Your task to perform on an android device: Go to battery settings Image 0: 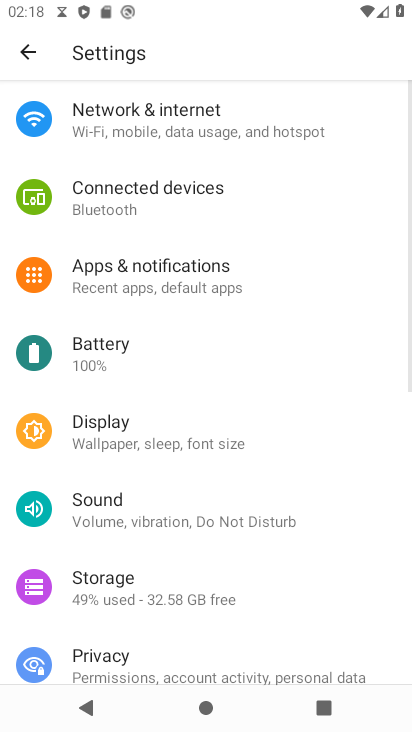
Step 0: press home button
Your task to perform on an android device: Go to battery settings Image 1: 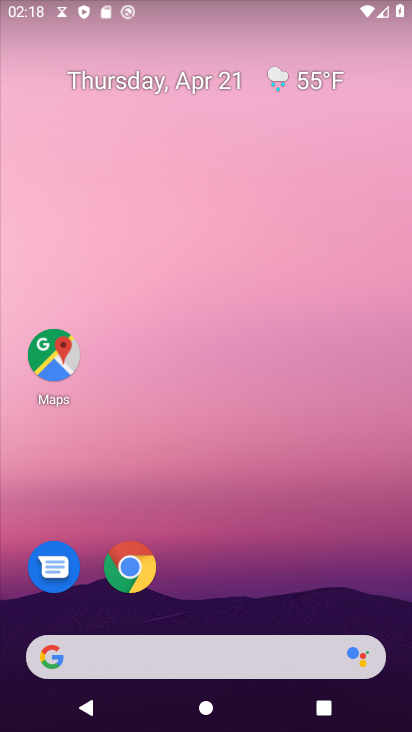
Step 1: drag from (180, 586) to (301, 130)
Your task to perform on an android device: Go to battery settings Image 2: 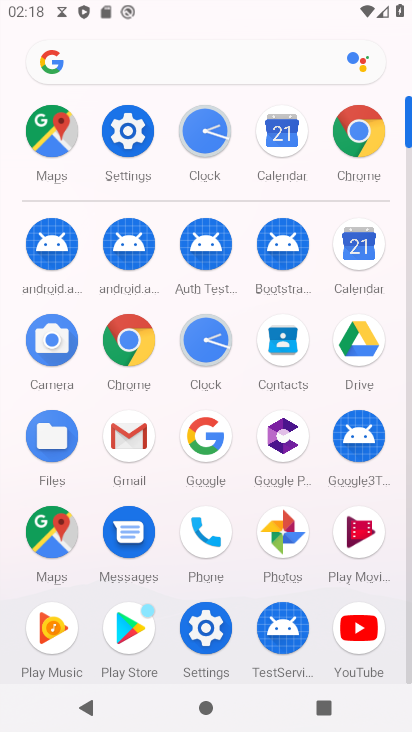
Step 2: click (121, 135)
Your task to perform on an android device: Go to battery settings Image 3: 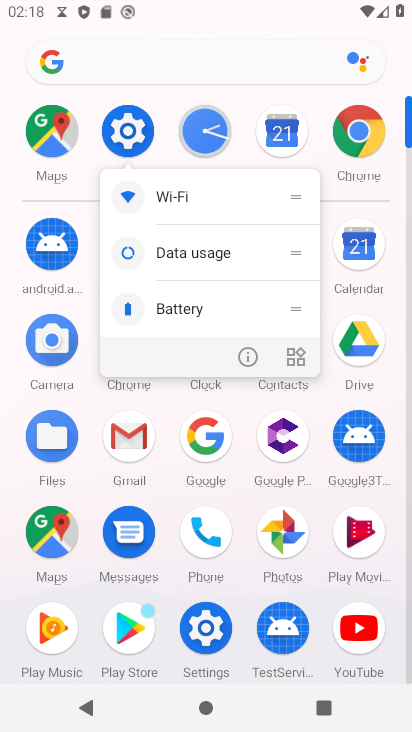
Step 3: click (135, 136)
Your task to perform on an android device: Go to battery settings Image 4: 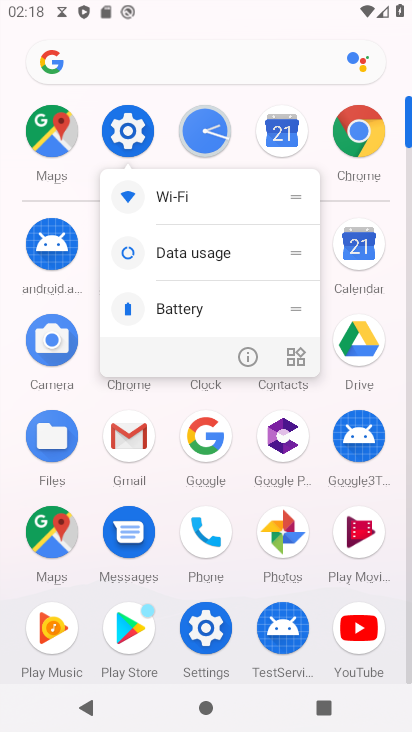
Step 4: click (126, 134)
Your task to perform on an android device: Go to battery settings Image 5: 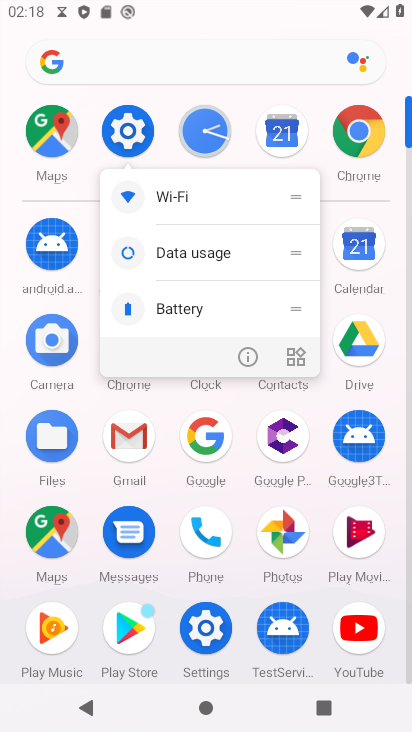
Step 5: click (126, 134)
Your task to perform on an android device: Go to battery settings Image 6: 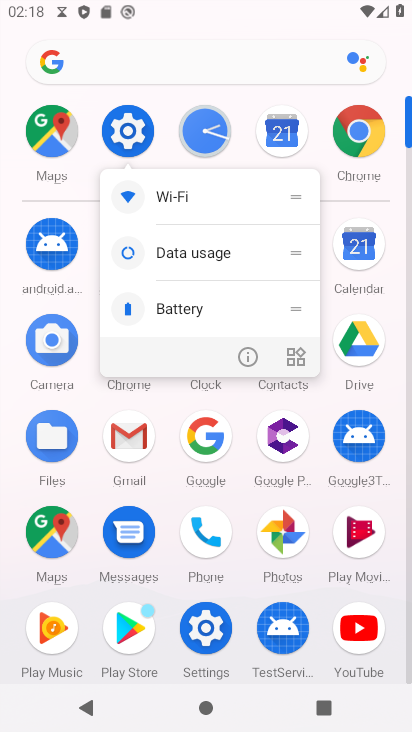
Step 6: click (131, 134)
Your task to perform on an android device: Go to battery settings Image 7: 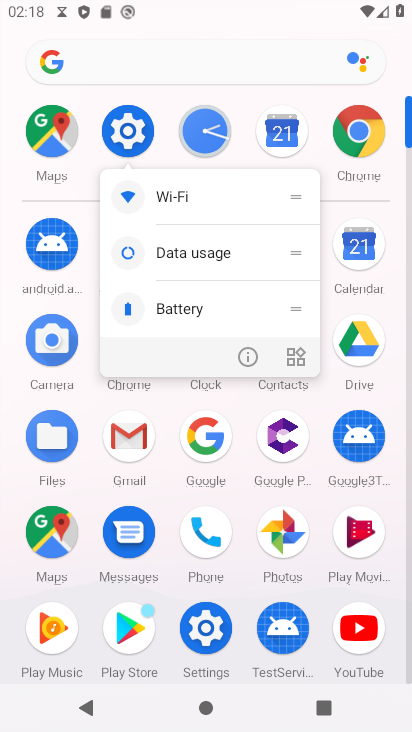
Step 7: click (129, 135)
Your task to perform on an android device: Go to battery settings Image 8: 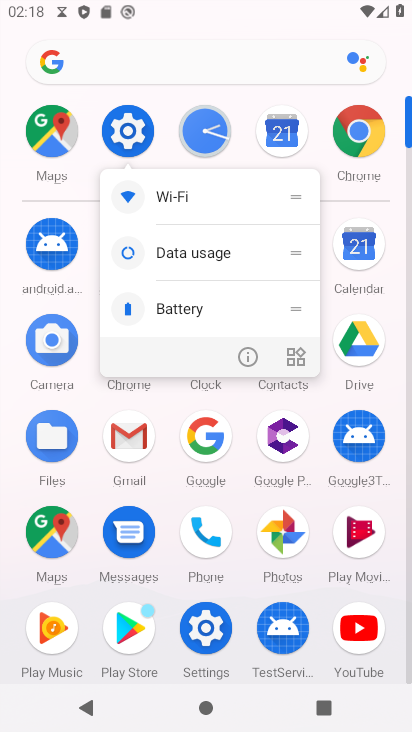
Step 8: click (123, 136)
Your task to perform on an android device: Go to battery settings Image 9: 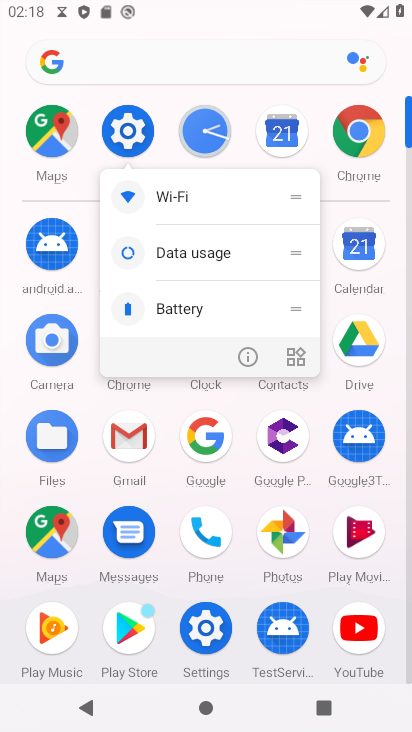
Step 9: click (132, 137)
Your task to perform on an android device: Go to battery settings Image 10: 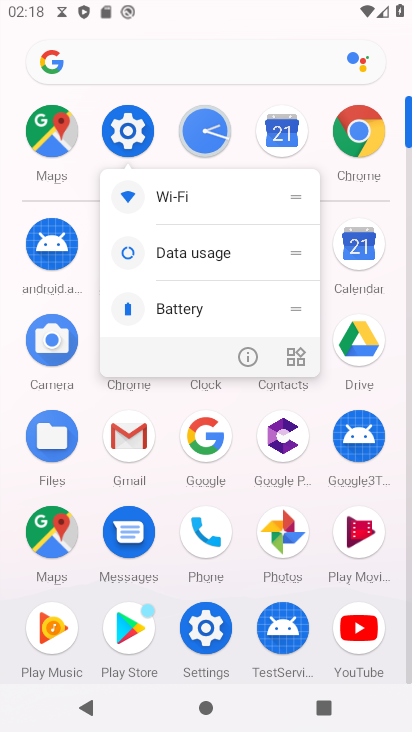
Step 10: click (130, 127)
Your task to perform on an android device: Go to battery settings Image 11: 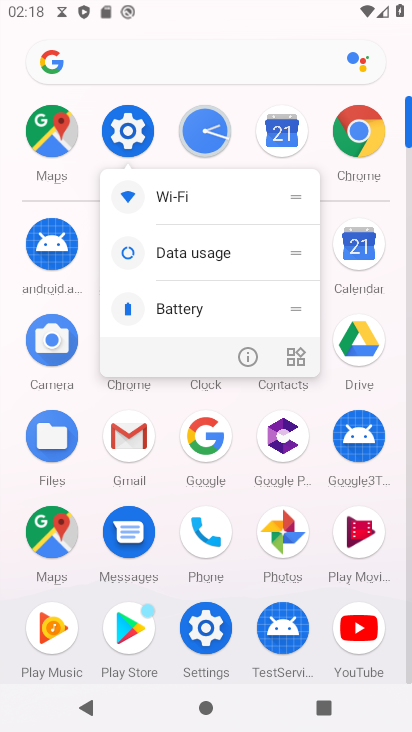
Step 11: click (125, 133)
Your task to perform on an android device: Go to battery settings Image 12: 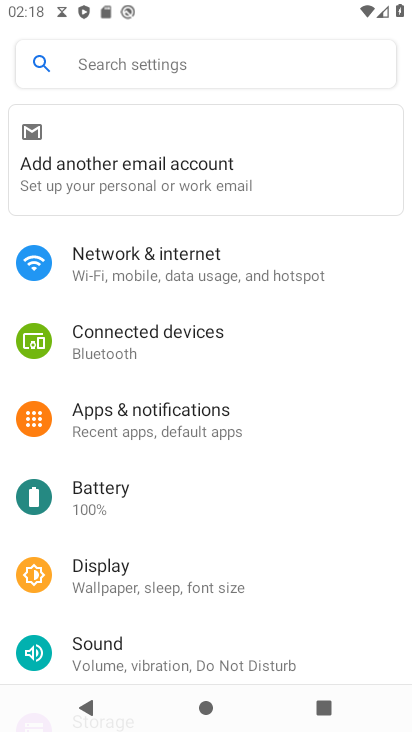
Step 12: click (115, 493)
Your task to perform on an android device: Go to battery settings Image 13: 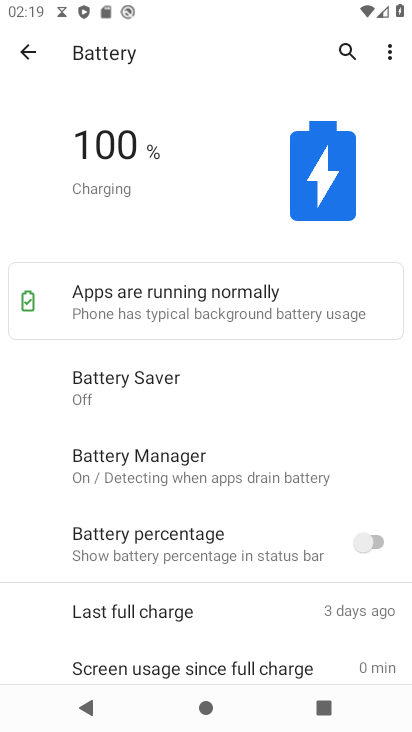
Step 13: task complete